Your task to perform on an android device: Toggle the flashlight Image 0: 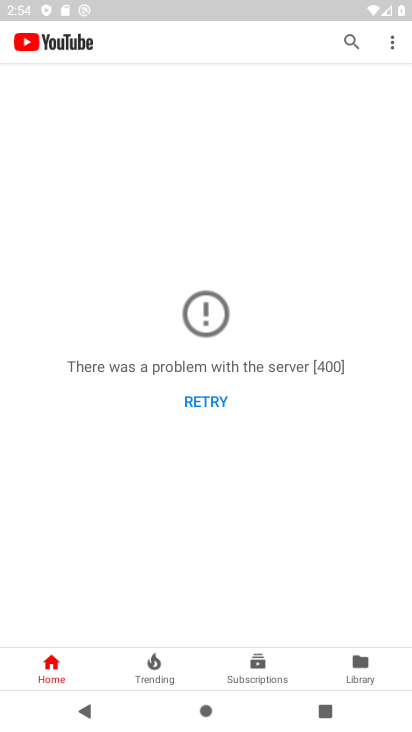
Step 0: press home button
Your task to perform on an android device: Toggle the flashlight Image 1: 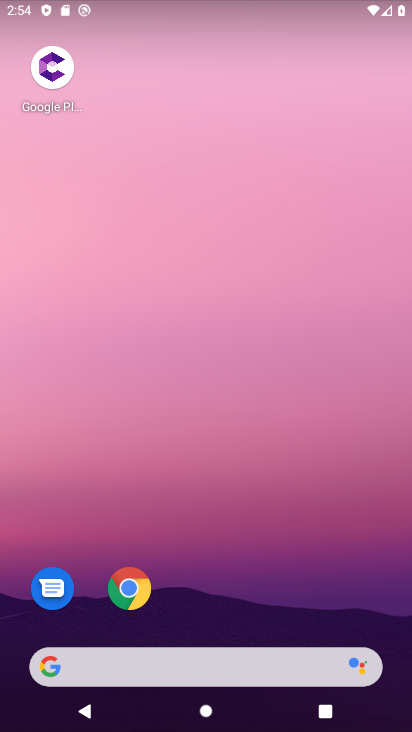
Step 1: task complete